Your task to perform on an android device: open app "YouTube Kids" Image 0: 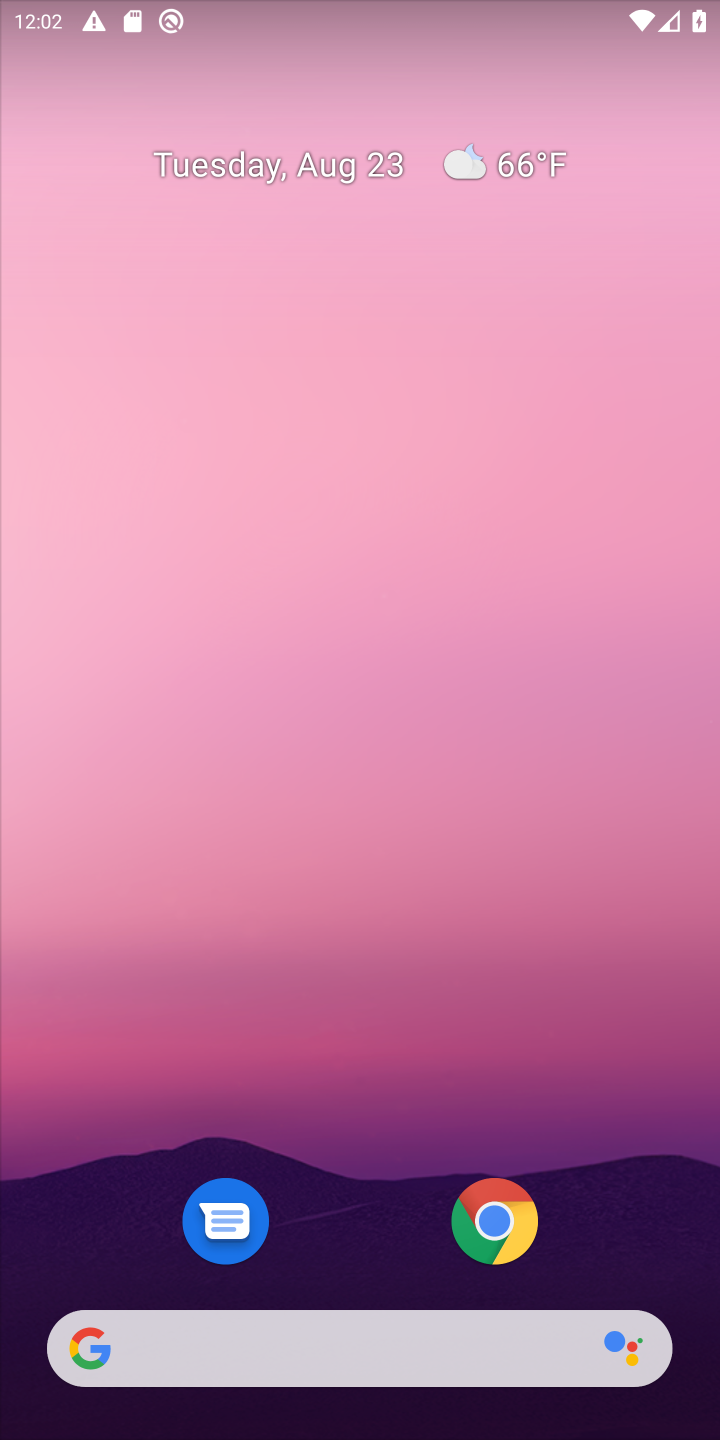
Step 0: drag from (393, 934) to (566, 43)
Your task to perform on an android device: open app "YouTube Kids" Image 1: 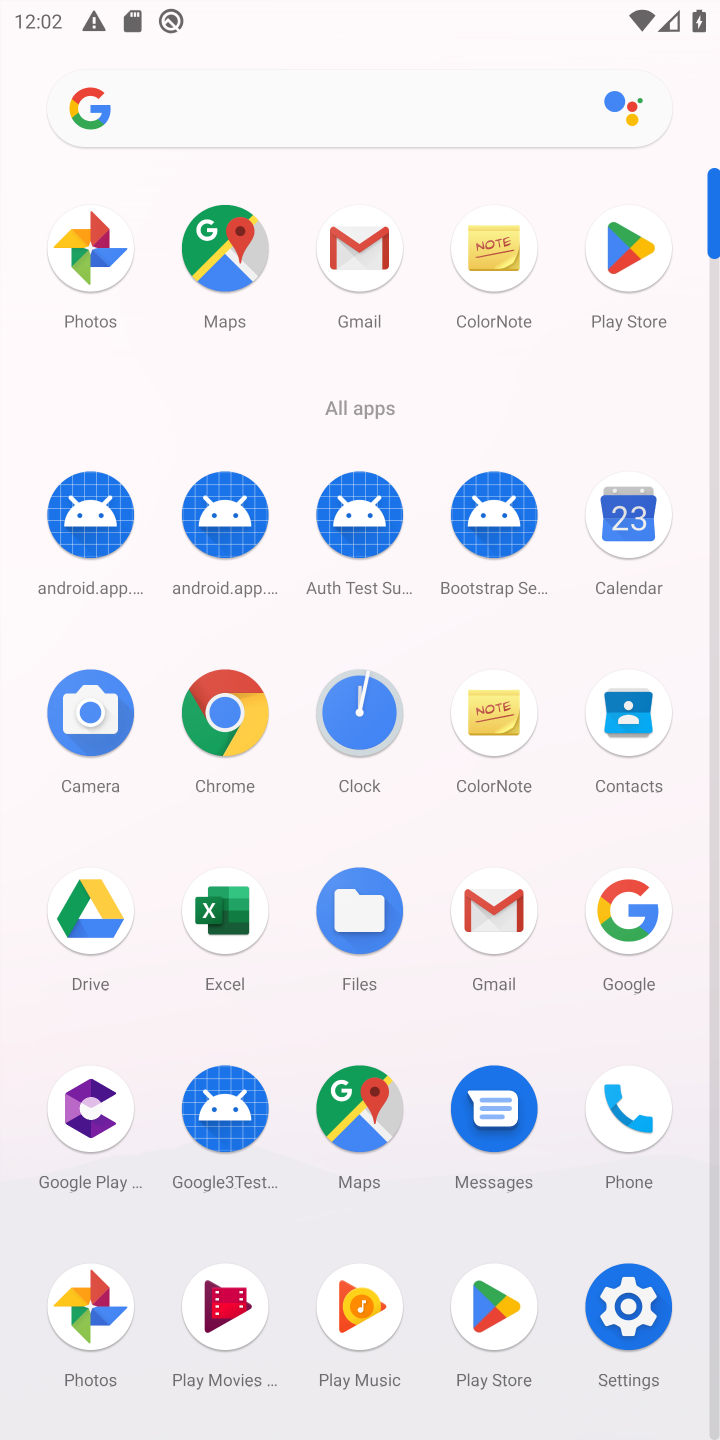
Step 1: click (637, 273)
Your task to perform on an android device: open app "YouTube Kids" Image 2: 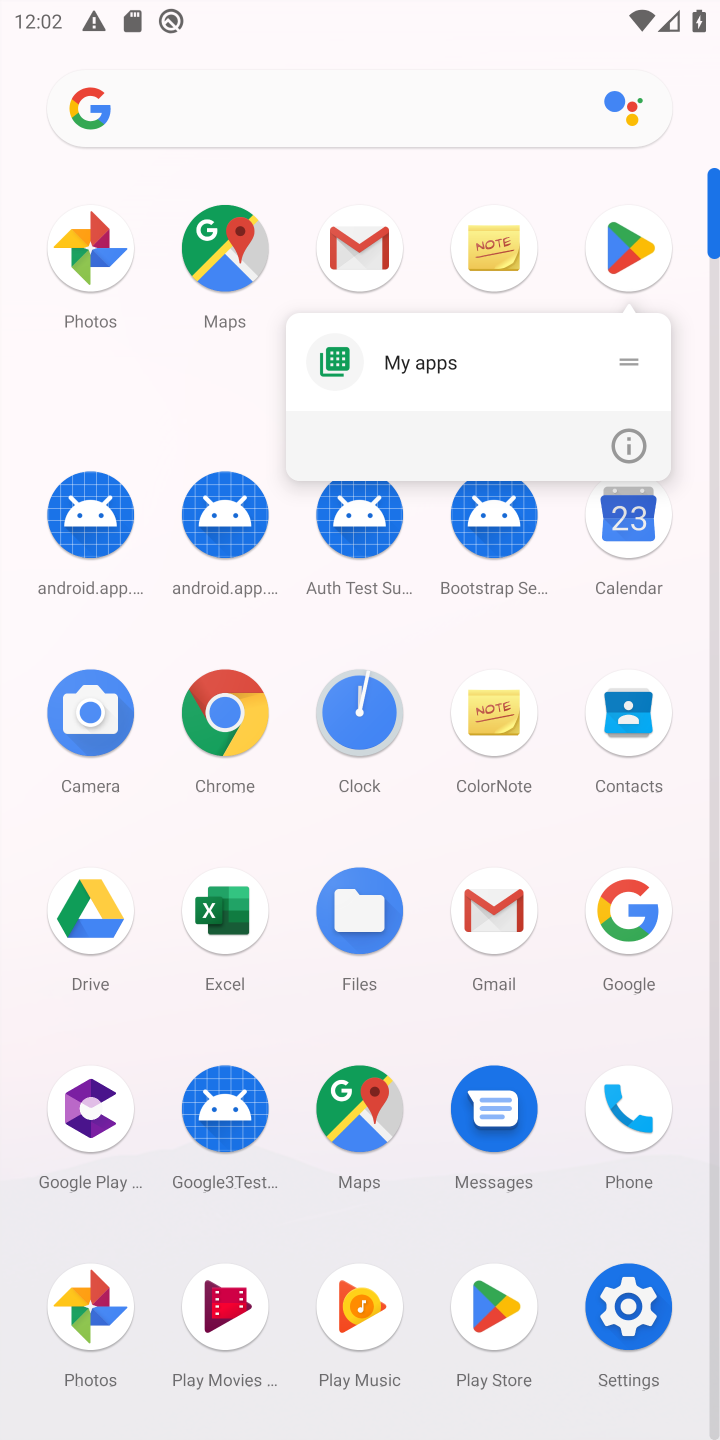
Step 2: click (611, 247)
Your task to perform on an android device: open app "YouTube Kids" Image 3: 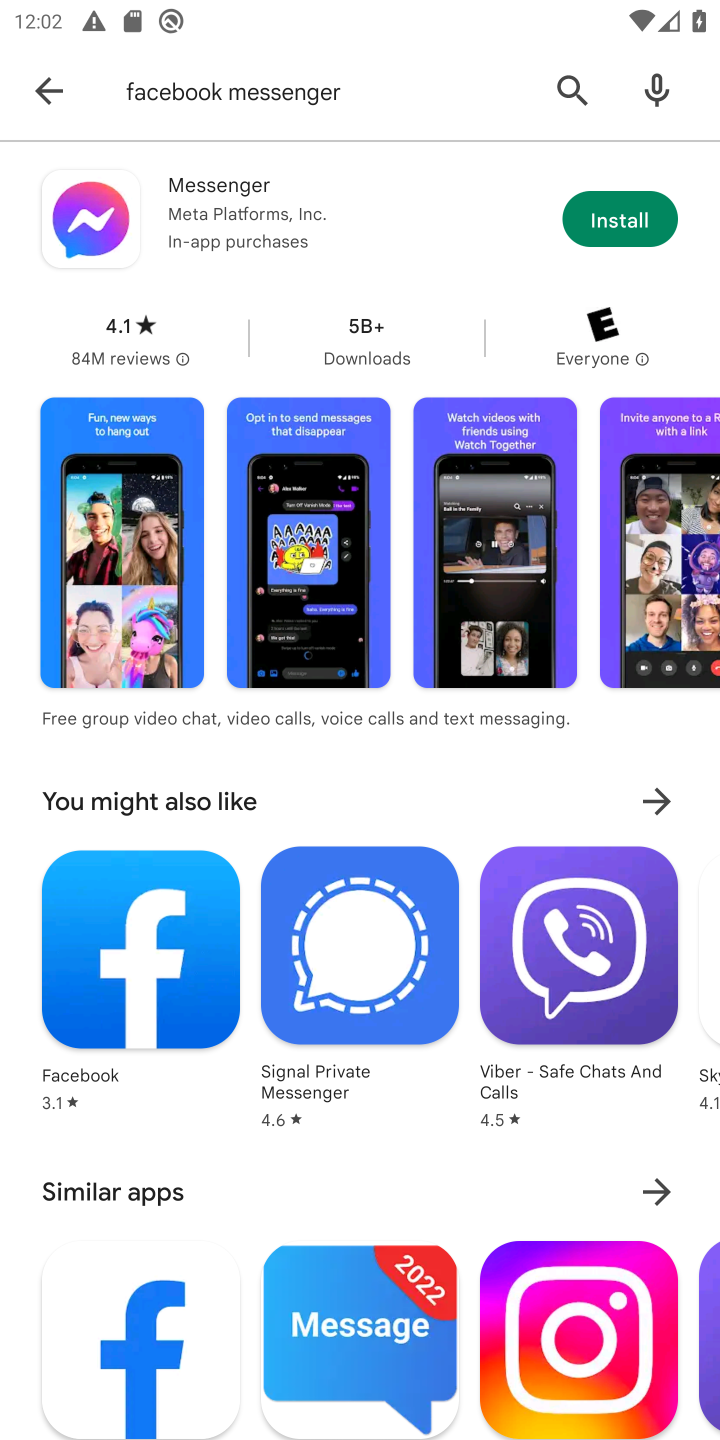
Step 3: click (562, 70)
Your task to perform on an android device: open app "YouTube Kids" Image 4: 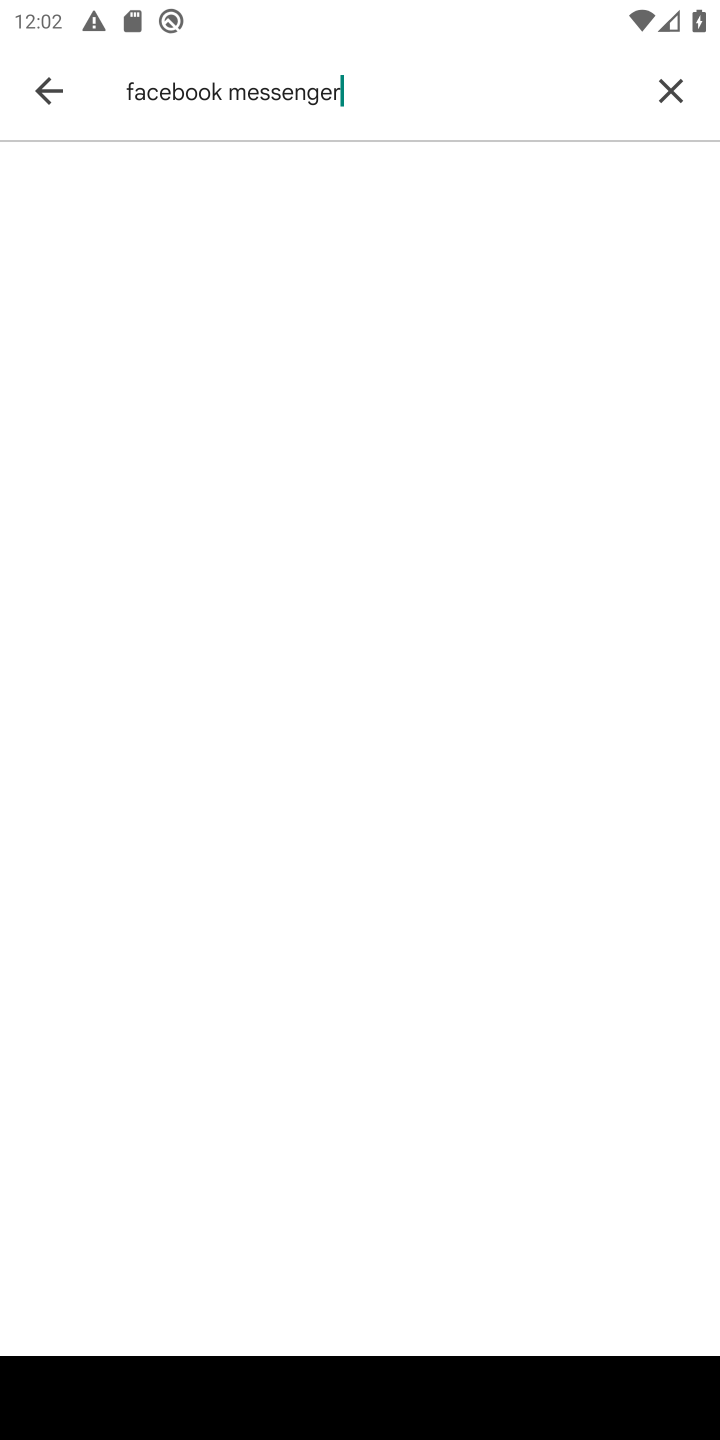
Step 4: click (661, 74)
Your task to perform on an android device: open app "YouTube Kids" Image 5: 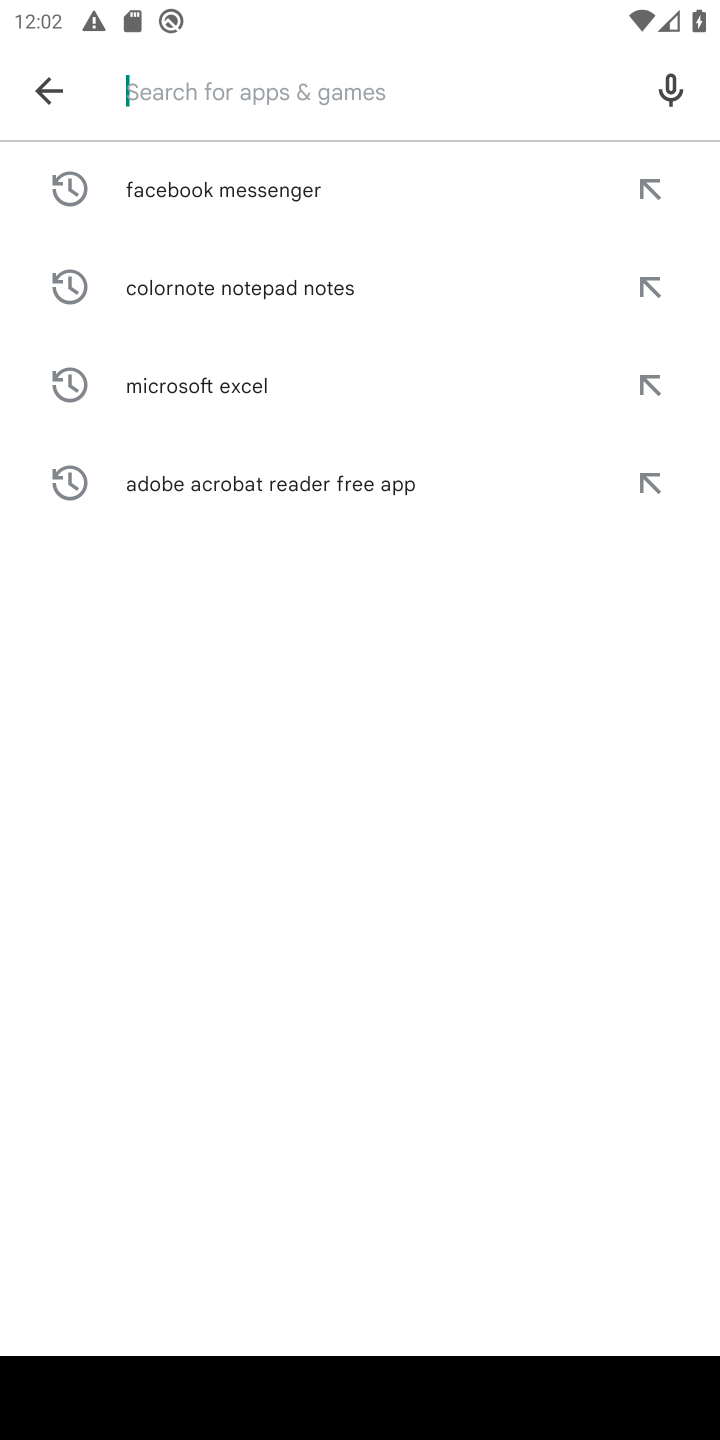
Step 5: click (230, 90)
Your task to perform on an android device: open app "YouTube Kids" Image 6: 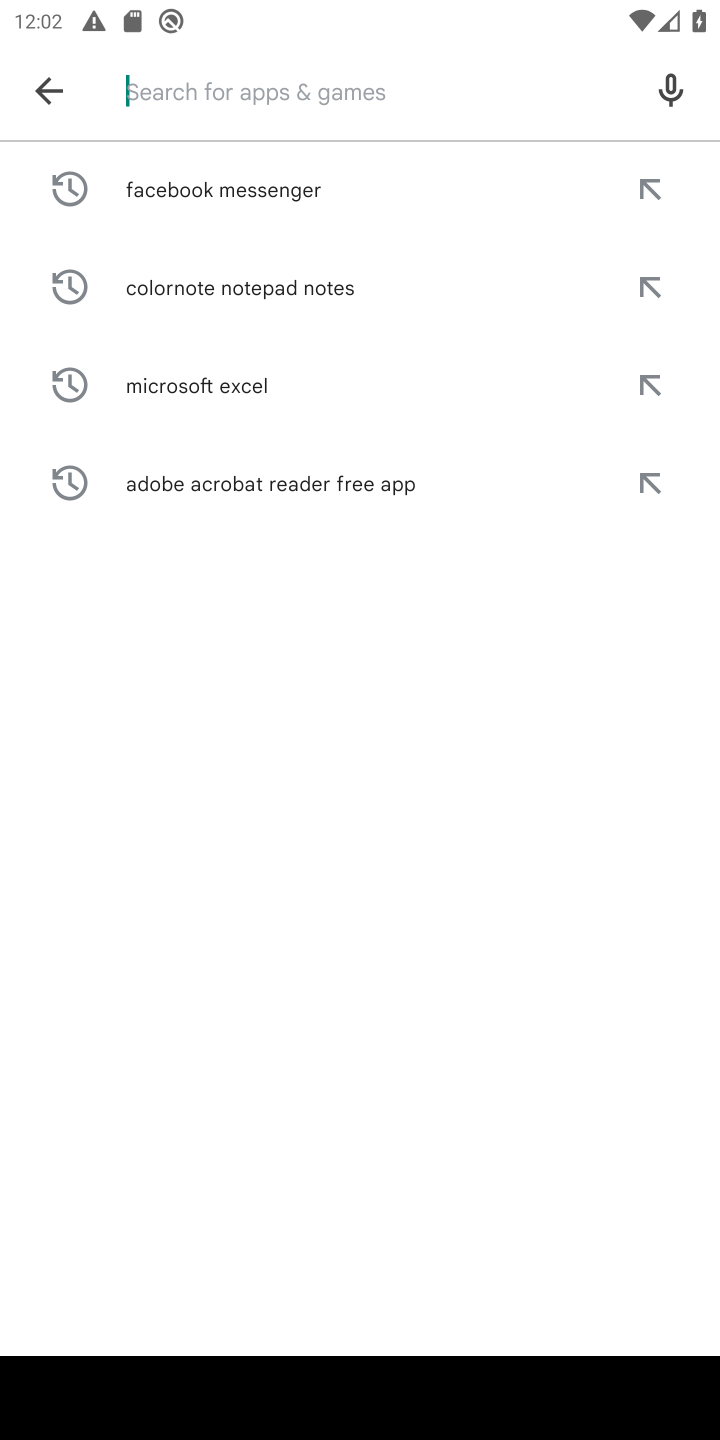
Step 6: click (188, 78)
Your task to perform on an android device: open app "YouTube Kids" Image 7: 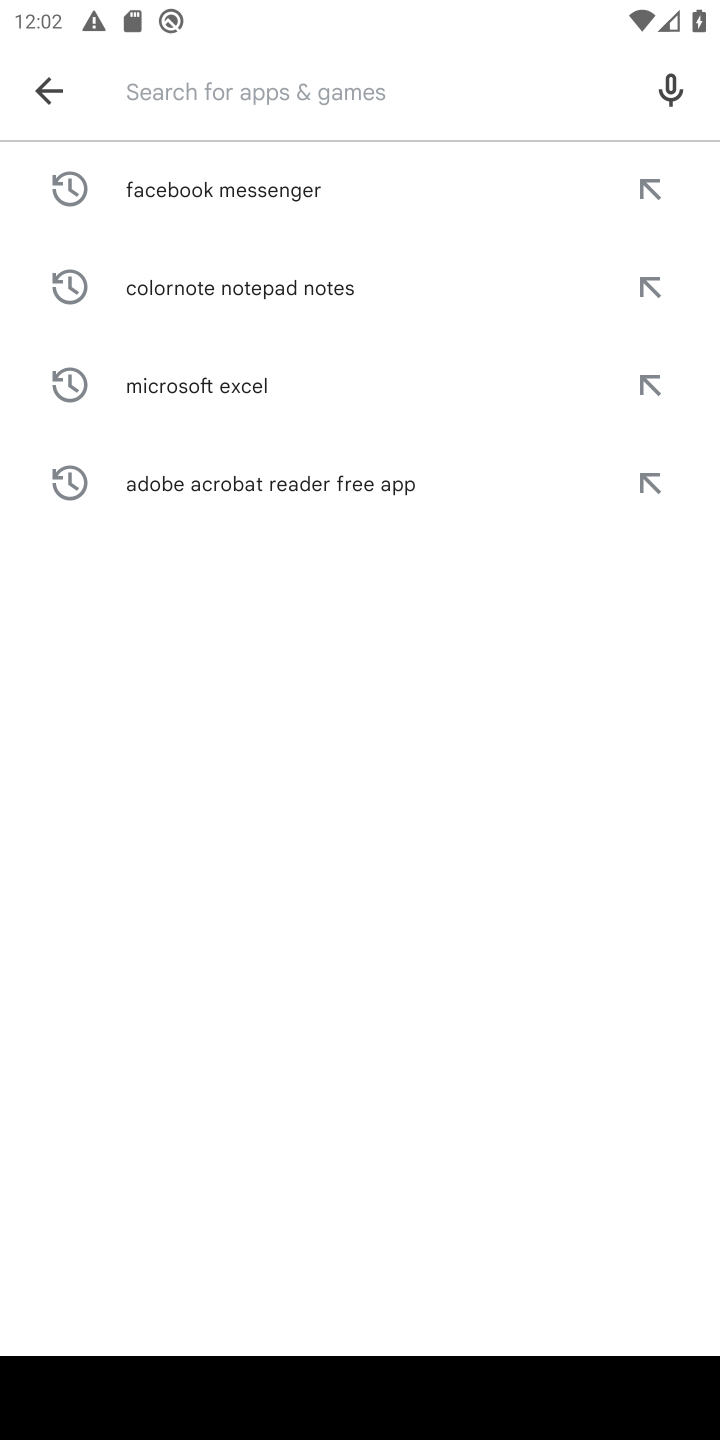
Step 7: type "YouTube Kids"
Your task to perform on an android device: open app "YouTube Kids" Image 8: 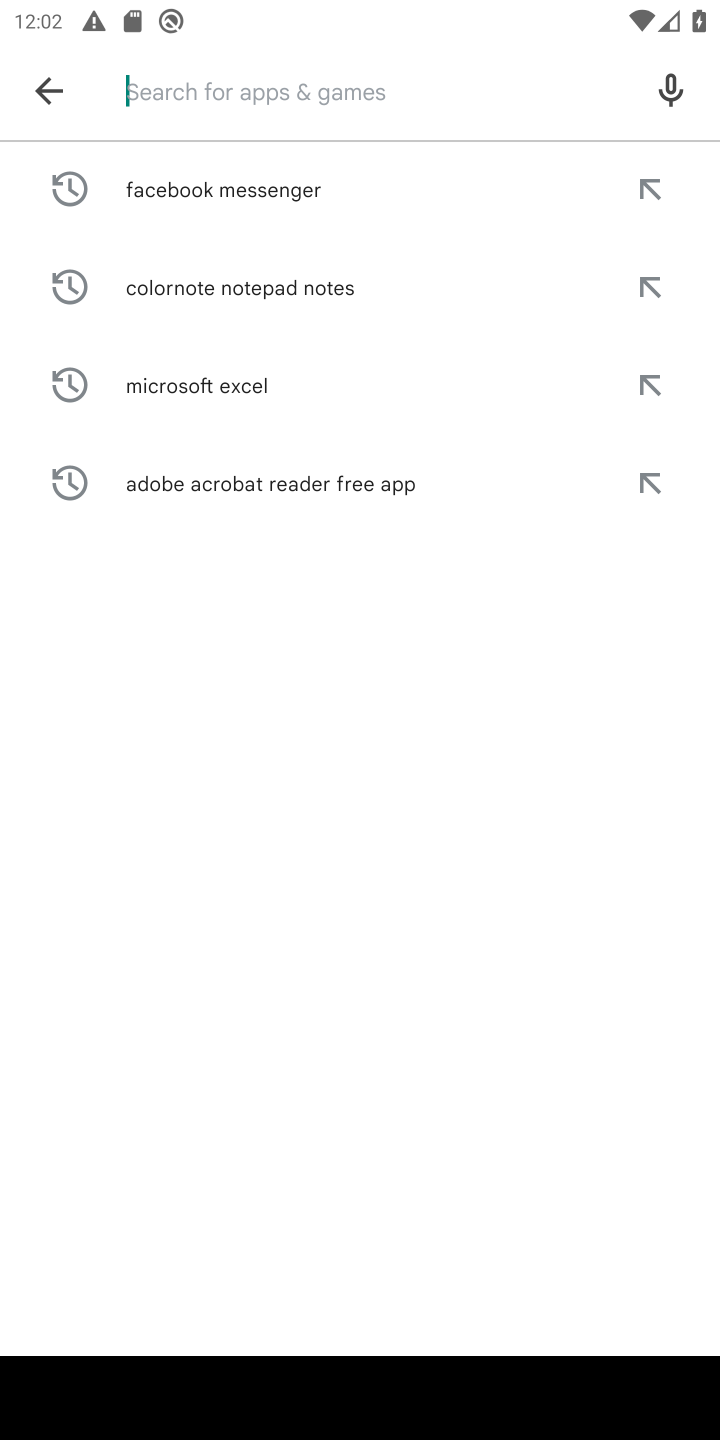
Step 8: click (369, 897)
Your task to perform on an android device: open app "YouTube Kids" Image 9: 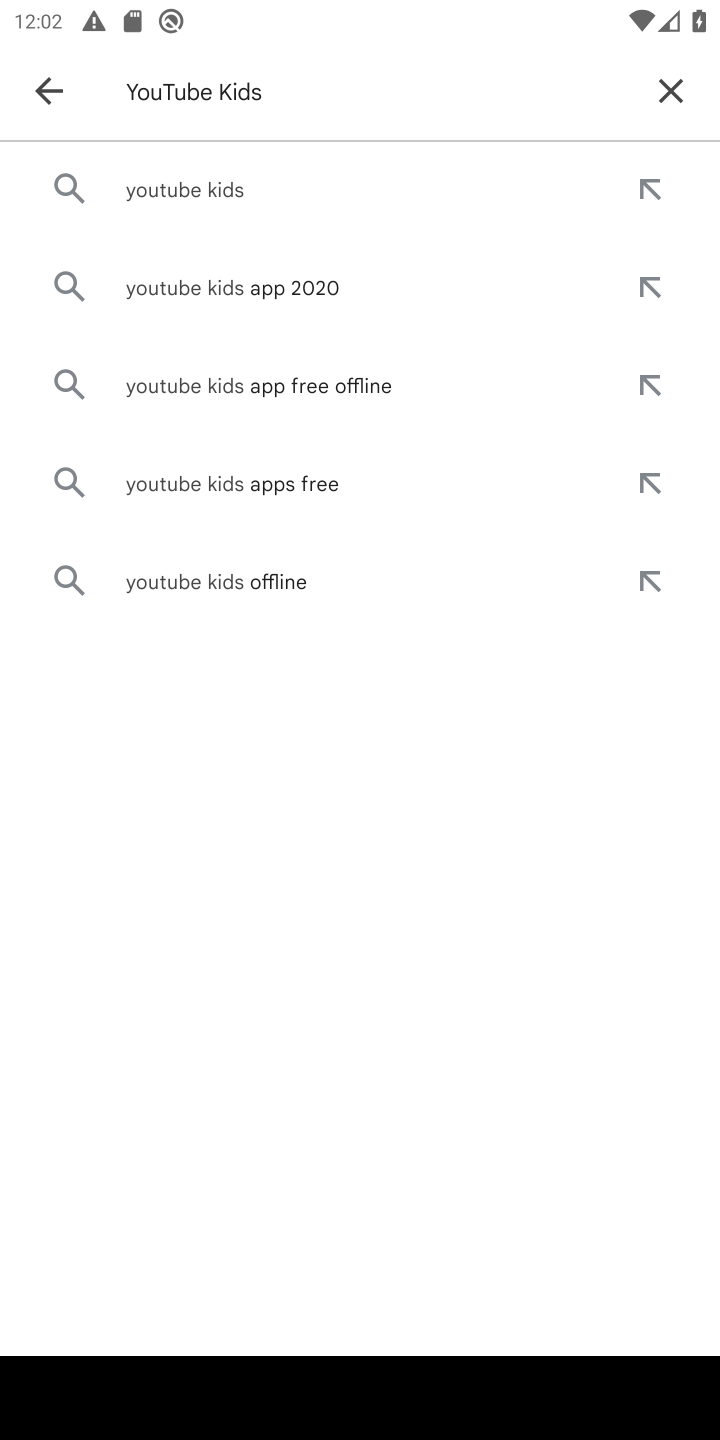
Step 9: click (202, 208)
Your task to perform on an android device: open app "YouTube Kids" Image 10: 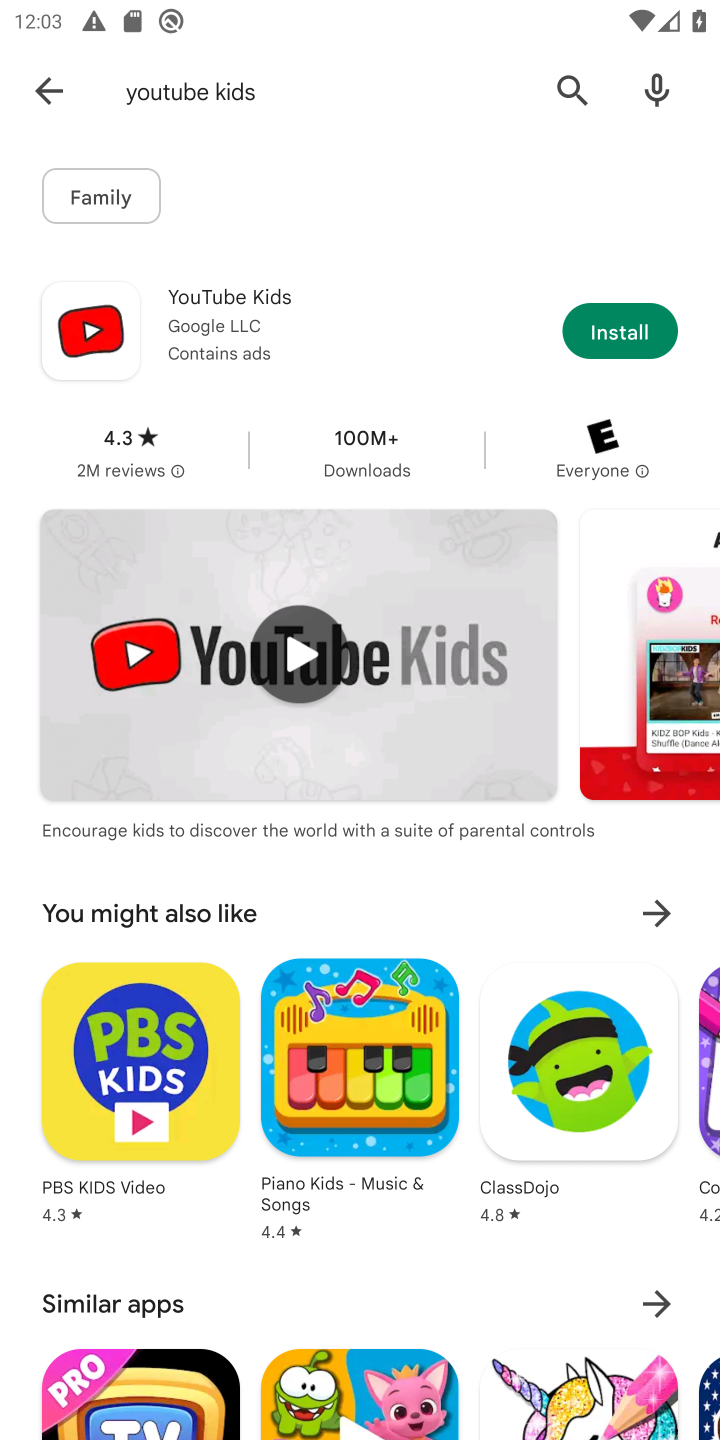
Step 10: task complete